Your task to perform on an android device: change timer sound Image 0: 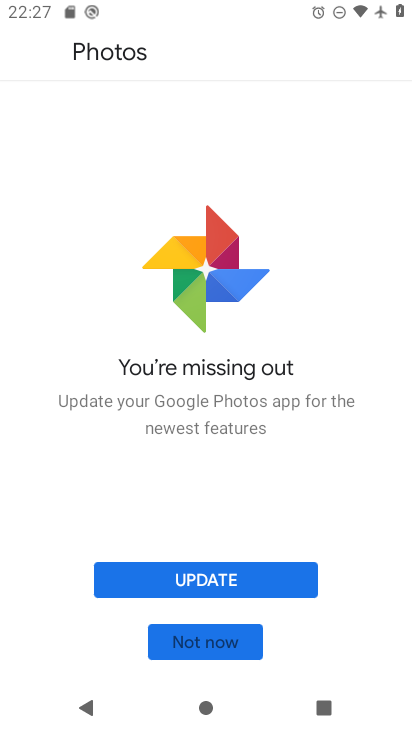
Step 0: press home button
Your task to perform on an android device: change timer sound Image 1: 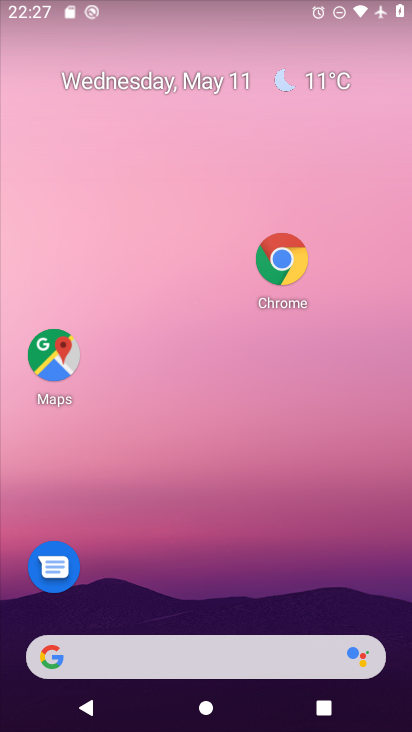
Step 1: drag from (186, 656) to (272, 210)
Your task to perform on an android device: change timer sound Image 2: 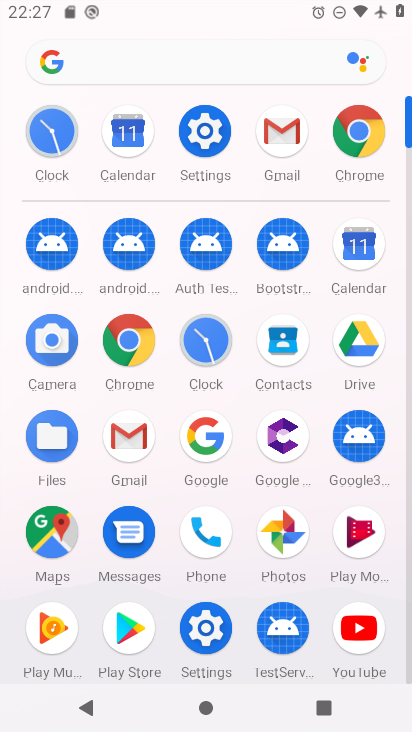
Step 2: click (207, 353)
Your task to perform on an android device: change timer sound Image 3: 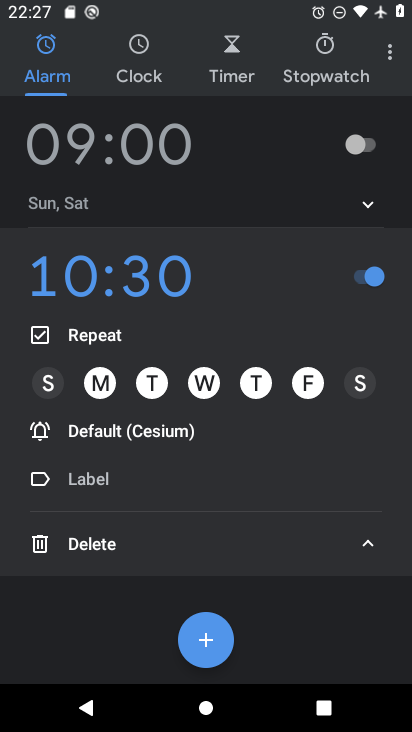
Step 3: click (387, 56)
Your task to perform on an android device: change timer sound Image 4: 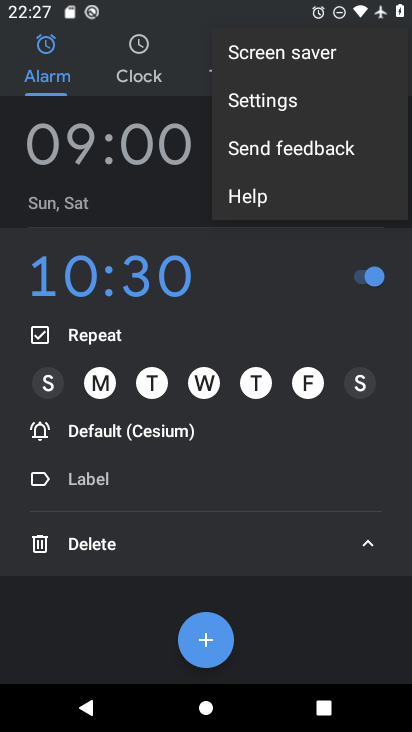
Step 4: click (285, 101)
Your task to perform on an android device: change timer sound Image 5: 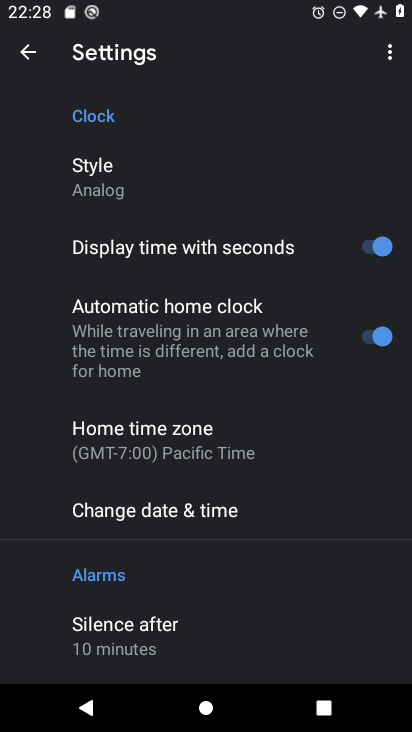
Step 5: drag from (202, 573) to (356, 74)
Your task to perform on an android device: change timer sound Image 6: 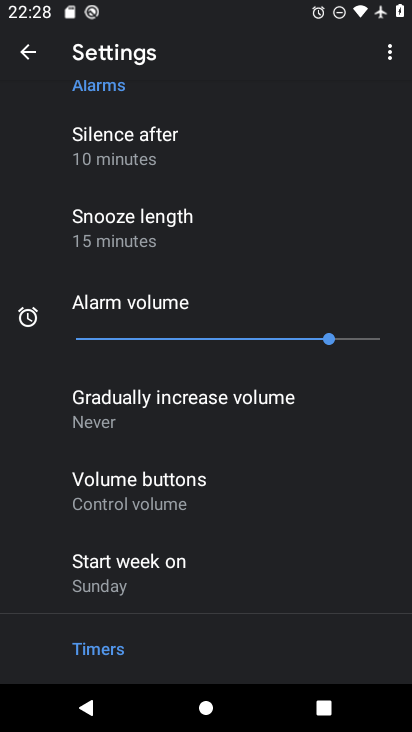
Step 6: drag from (193, 549) to (324, 166)
Your task to perform on an android device: change timer sound Image 7: 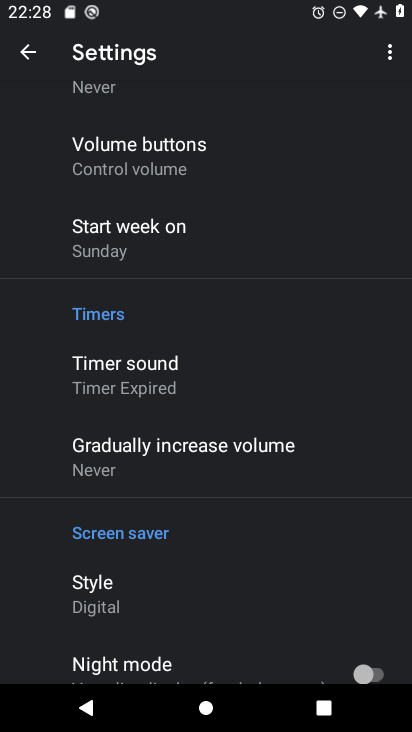
Step 7: click (146, 382)
Your task to perform on an android device: change timer sound Image 8: 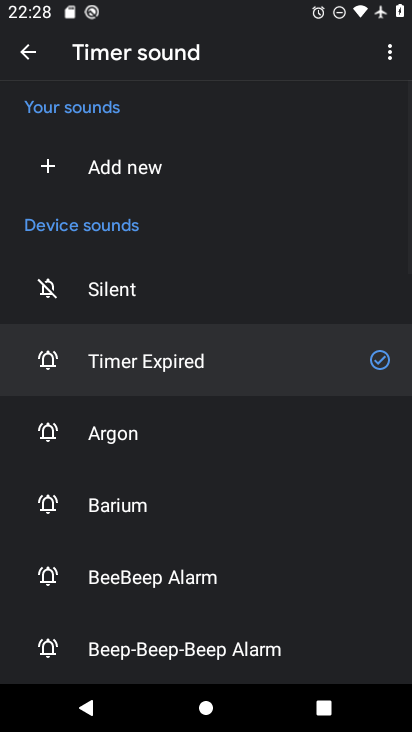
Step 8: click (130, 436)
Your task to perform on an android device: change timer sound Image 9: 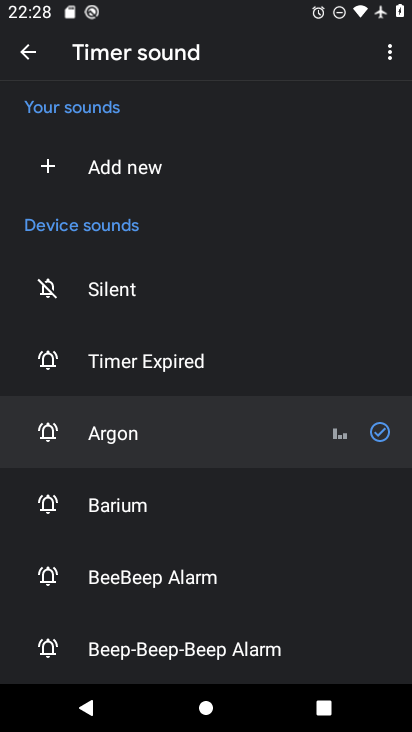
Step 9: task complete